Your task to perform on an android device: Open the stopwatch Image 0: 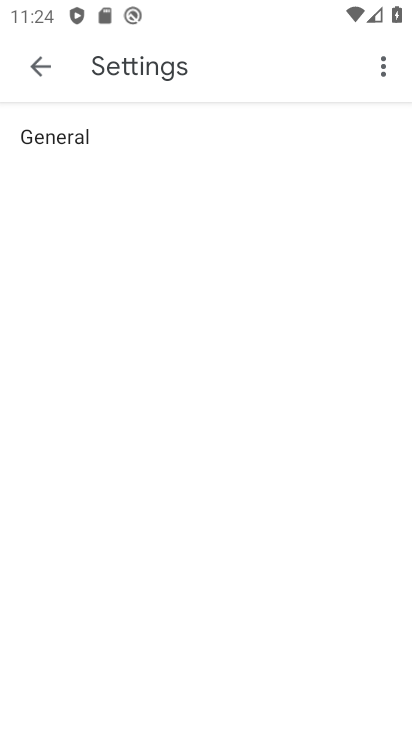
Step 0: press home button
Your task to perform on an android device: Open the stopwatch Image 1: 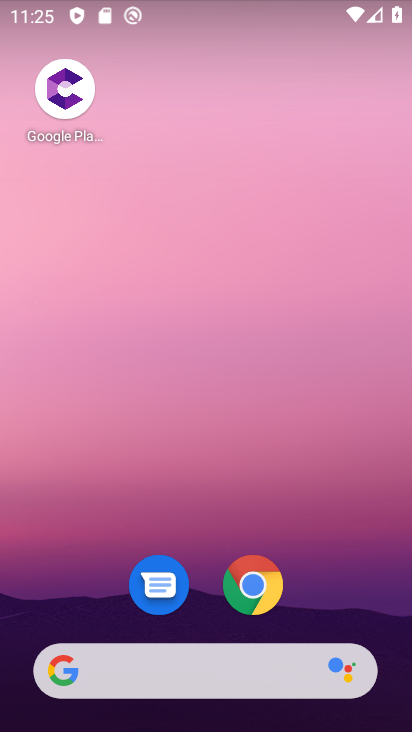
Step 1: drag from (227, 480) to (257, 1)
Your task to perform on an android device: Open the stopwatch Image 2: 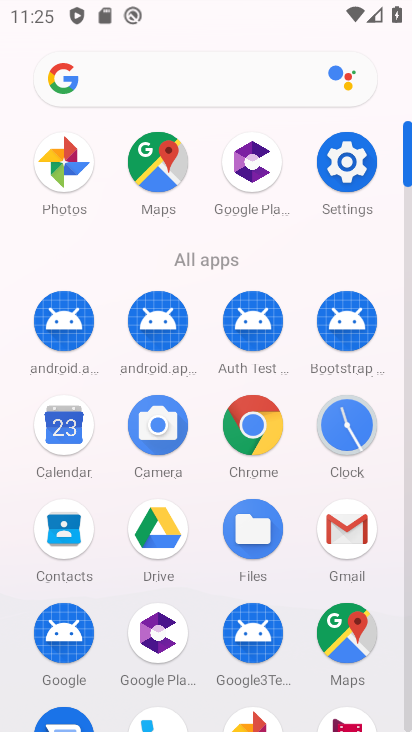
Step 2: click (342, 438)
Your task to perform on an android device: Open the stopwatch Image 3: 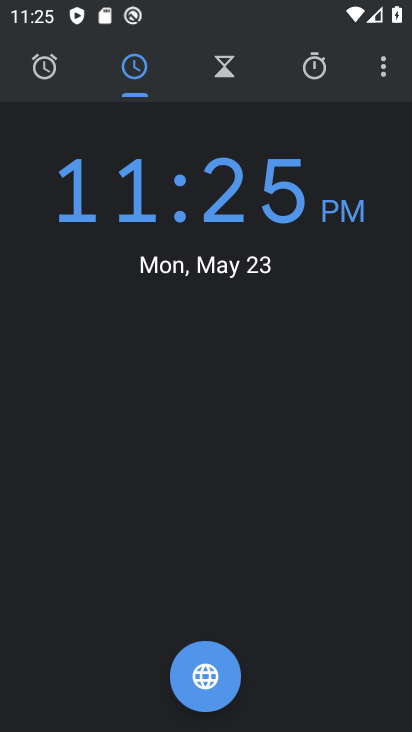
Step 3: click (312, 68)
Your task to perform on an android device: Open the stopwatch Image 4: 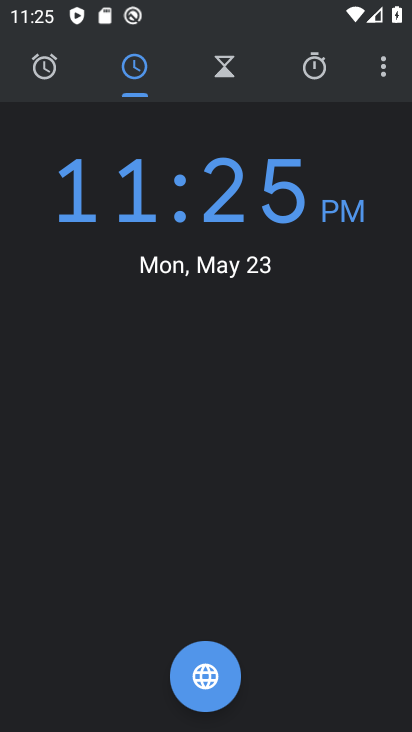
Step 4: click (314, 63)
Your task to perform on an android device: Open the stopwatch Image 5: 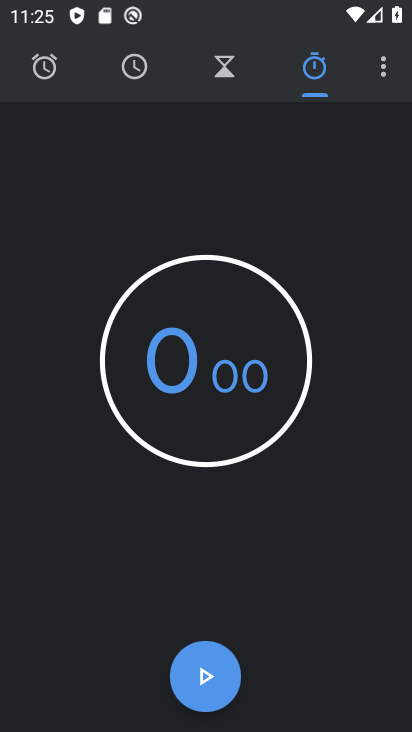
Step 5: task complete